Your task to perform on an android device: Open the stopwatch Image 0: 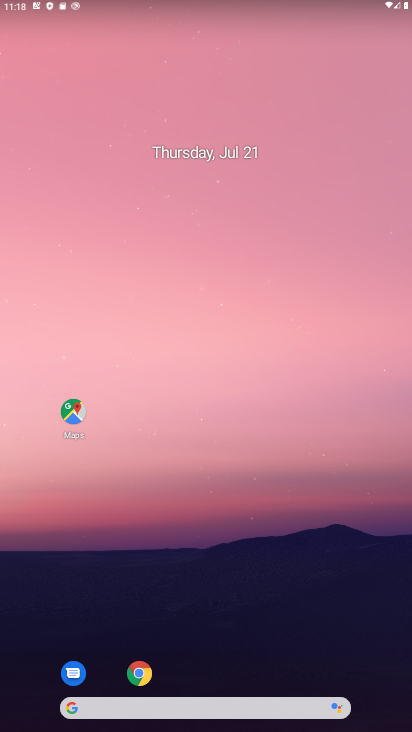
Step 0: drag from (211, 673) to (211, 285)
Your task to perform on an android device: Open the stopwatch Image 1: 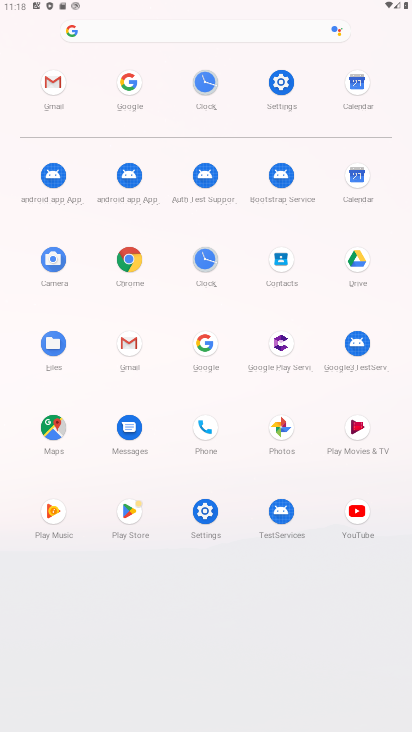
Step 1: click (208, 92)
Your task to perform on an android device: Open the stopwatch Image 2: 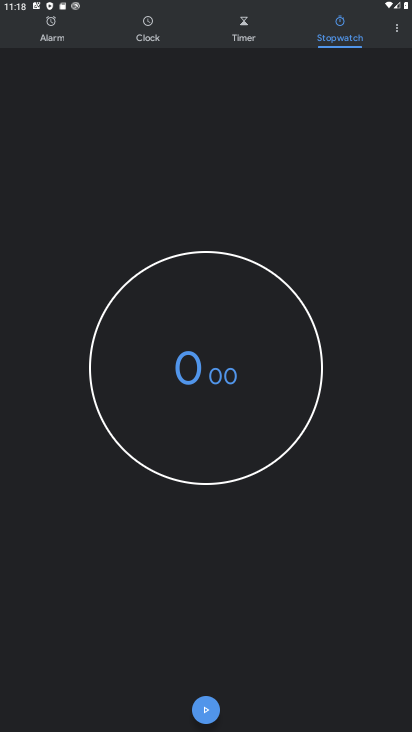
Step 2: task complete